Your task to perform on an android device: add a label to a message in the gmail app Image 0: 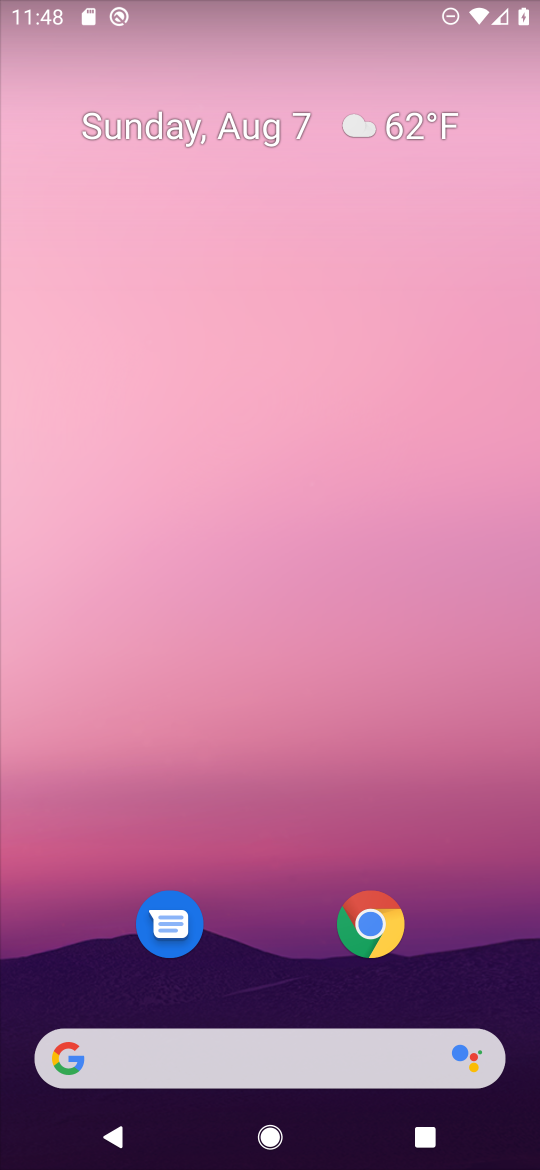
Step 0: drag from (269, 1051) to (269, 294)
Your task to perform on an android device: add a label to a message in the gmail app Image 1: 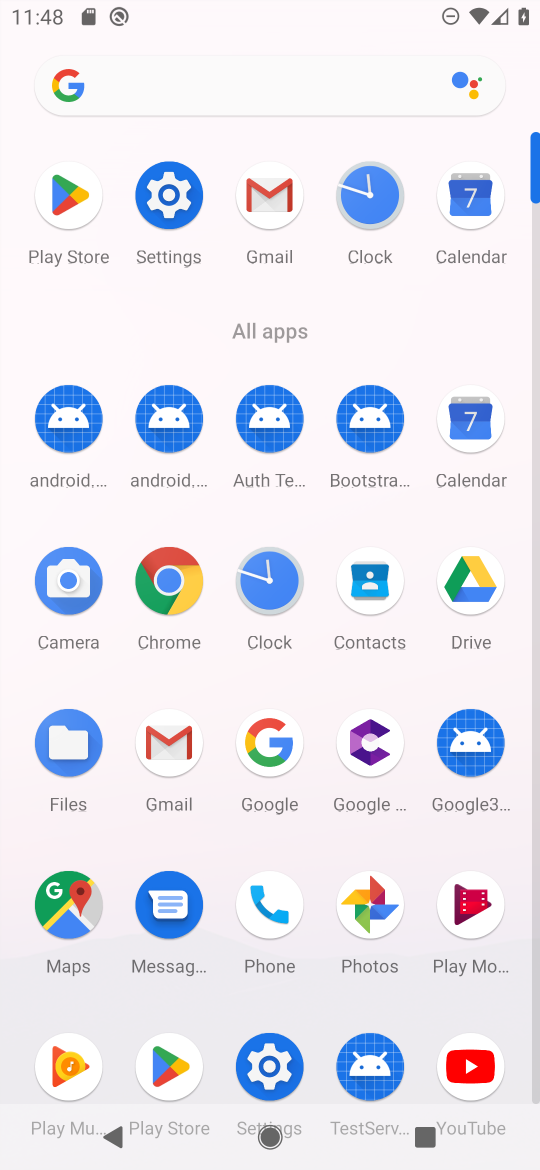
Step 1: click (250, 202)
Your task to perform on an android device: add a label to a message in the gmail app Image 2: 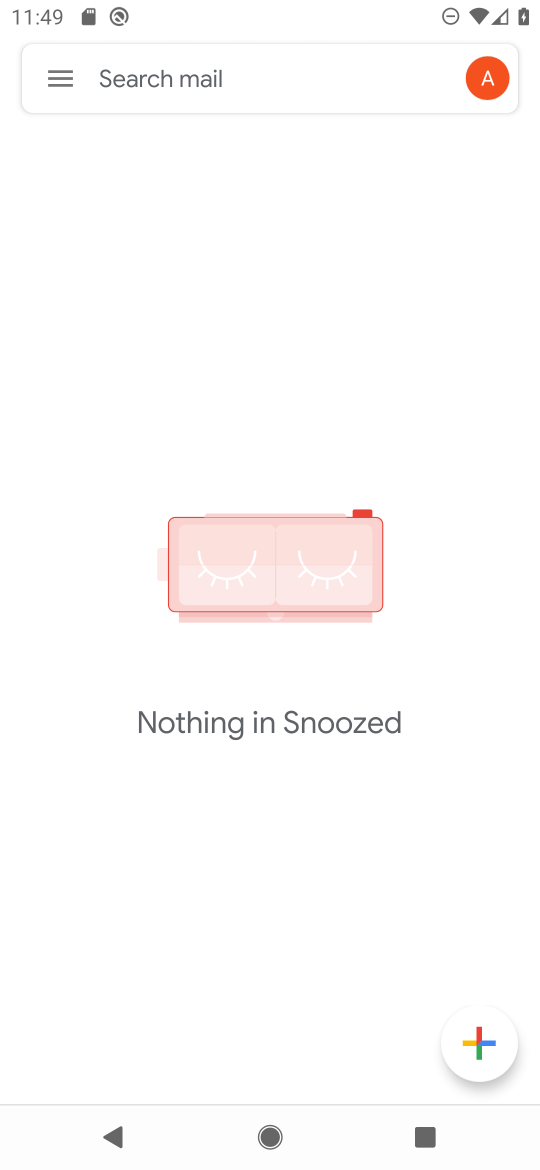
Step 2: click (47, 73)
Your task to perform on an android device: add a label to a message in the gmail app Image 3: 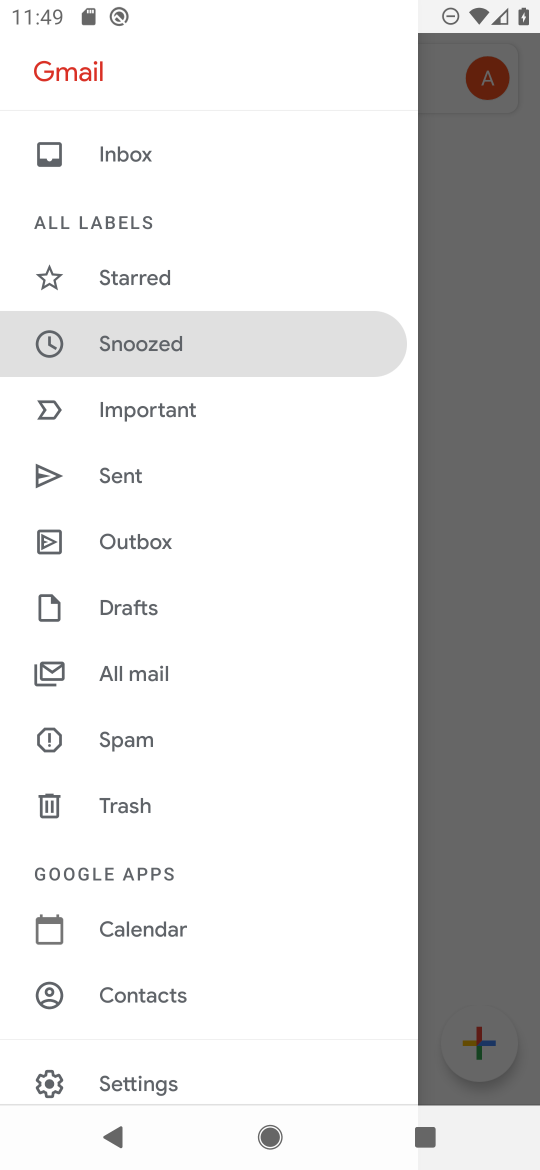
Step 3: click (108, 162)
Your task to perform on an android device: add a label to a message in the gmail app Image 4: 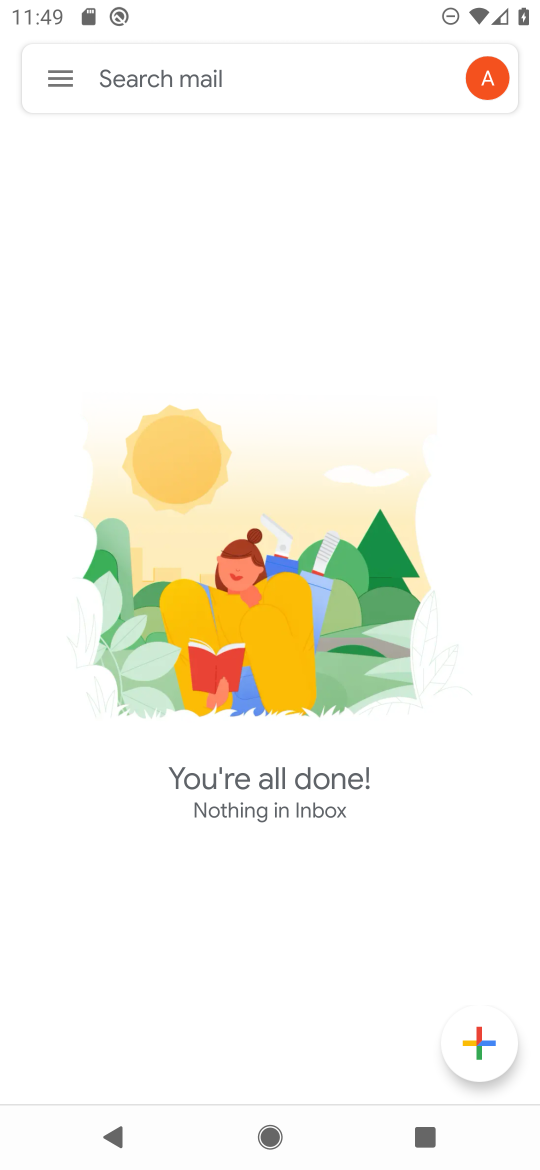
Step 4: task complete